Your task to perform on an android device: Open Google Maps and go to "Timeline" Image 0: 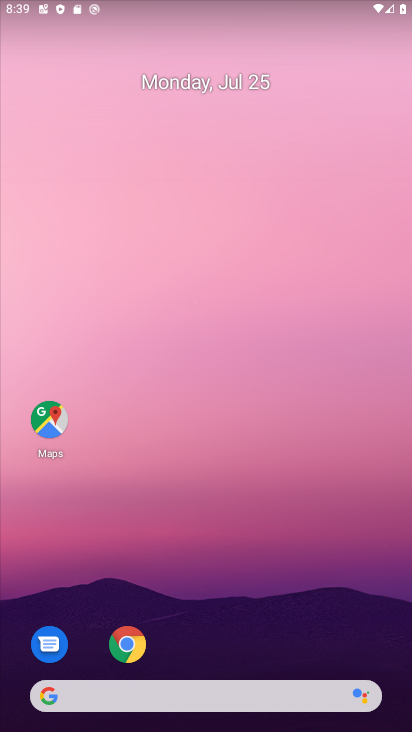
Step 0: drag from (278, 603) to (286, 56)
Your task to perform on an android device: Open Google Maps and go to "Timeline" Image 1: 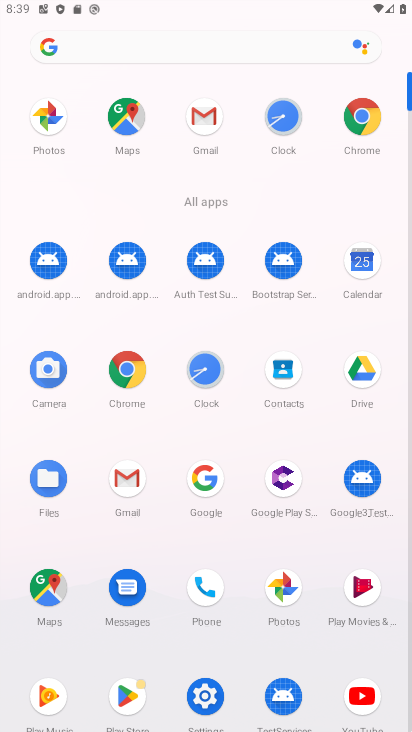
Step 1: click (46, 578)
Your task to perform on an android device: Open Google Maps and go to "Timeline" Image 2: 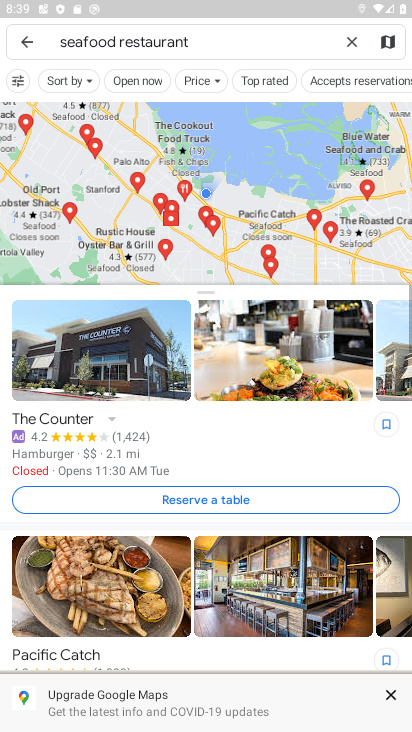
Step 2: click (26, 41)
Your task to perform on an android device: Open Google Maps and go to "Timeline" Image 3: 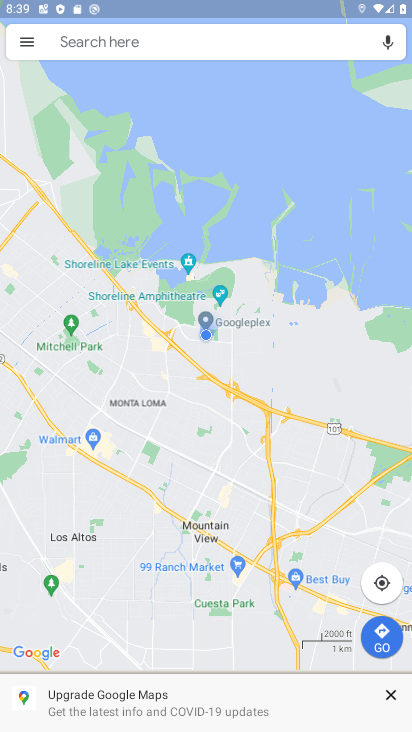
Step 3: click (26, 41)
Your task to perform on an android device: Open Google Maps and go to "Timeline" Image 4: 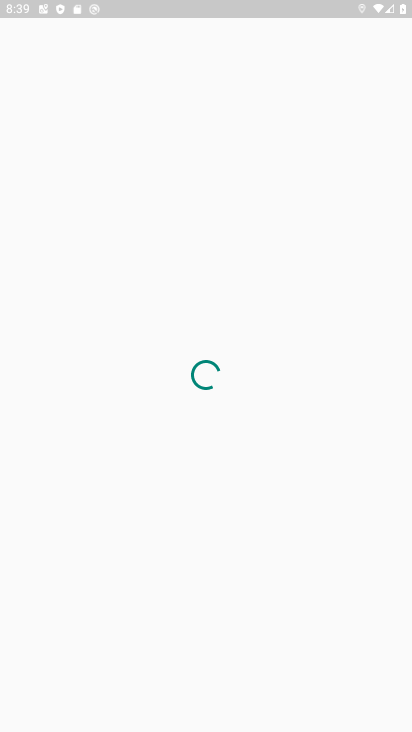
Step 4: click (96, 187)
Your task to perform on an android device: Open Google Maps and go to "Timeline" Image 5: 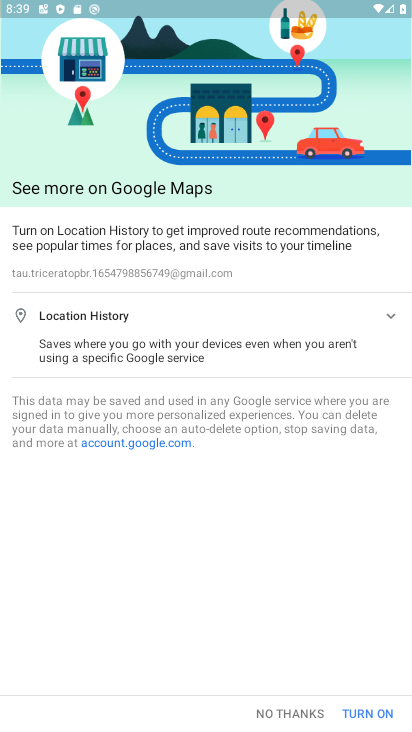
Step 5: click (292, 718)
Your task to perform on an android device: Open Google Maps and go to "Timeline" Image 6: 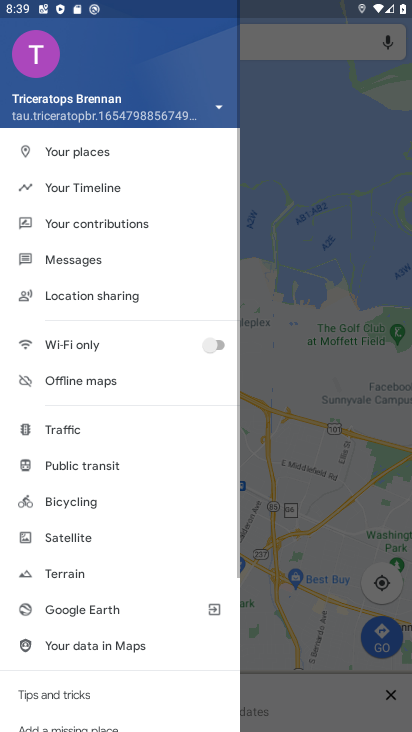
Step 6: click (59, 185)
Your task to perform on an android device: Open Google Maps and go to "Timeline" Image 7: 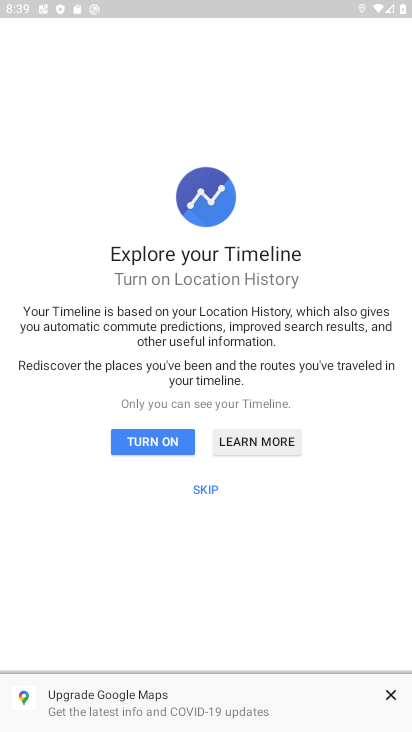
Step 7: click (173, 441)
Your task to perform on an android device: Open Google Maps and go to "Timeline" Image 8: 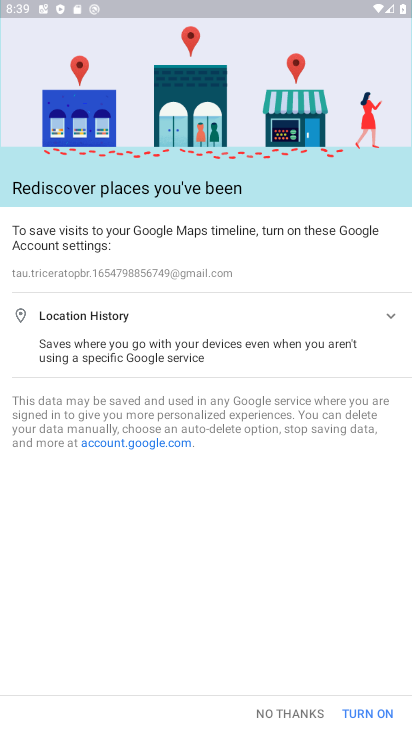
Step 8: click (382, 715)
Your task to perform on an android device: Open Google Maps and go to "Timeline" Image 9: 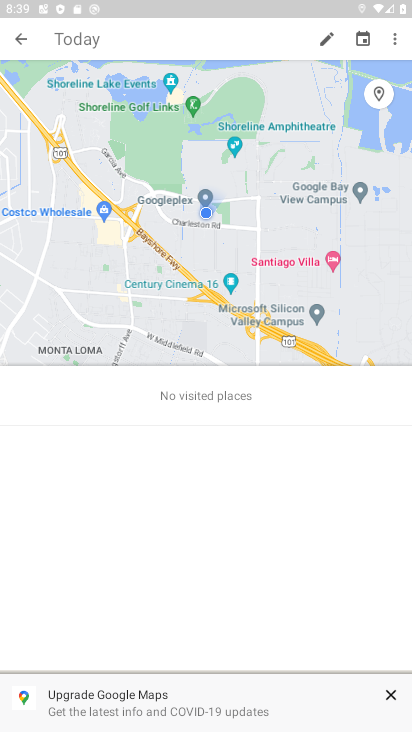
Step 9: task complete